Your task to perform on an android device: Open the calendar and show me this week's events Image 0: 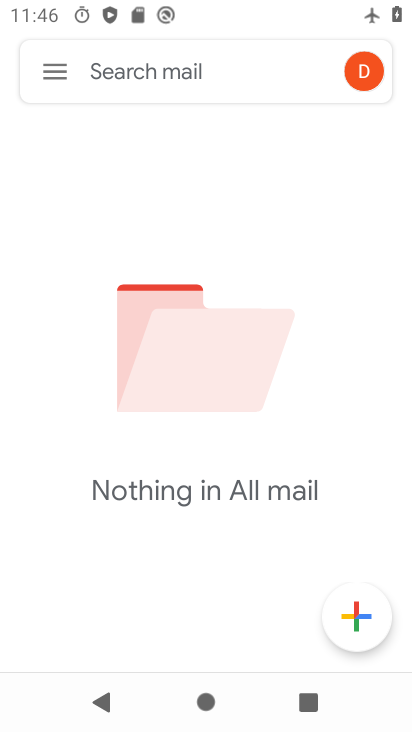
Step 0: press home button
Your task to perform on an android device: Open the calendar and show me this week's events Image 1: 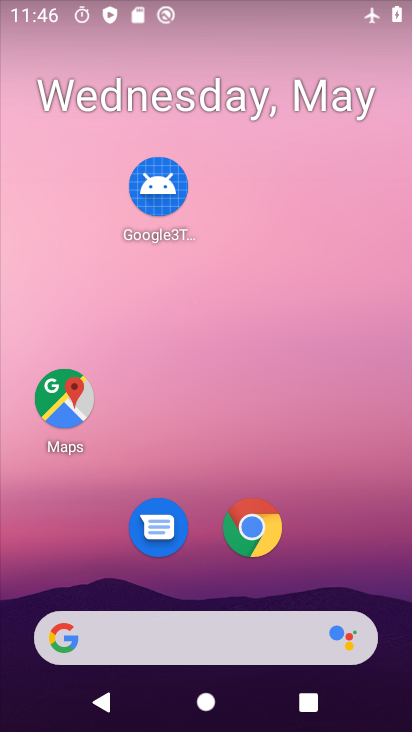
Step 1: drag from (197, 583) to (295, 111)
Your task to perform on an android device: Open the calendar and show me this week's events Image 2: 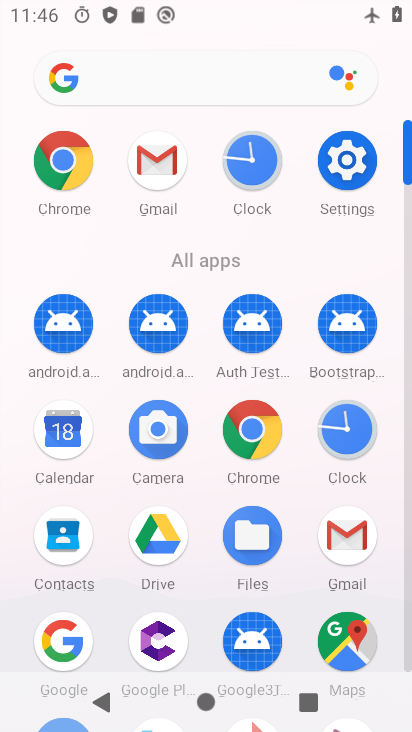
Step 2: click (54, 425)
Your task to perform on an android device: Open the calendar and show me this week's events Image 3: 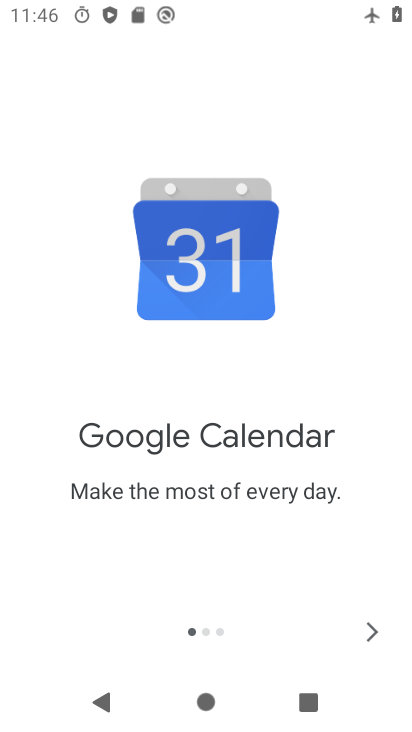
Step 3: click (362, 629)
Your task to perform on an android device: Open the calendar and show me this week's events Image 4: 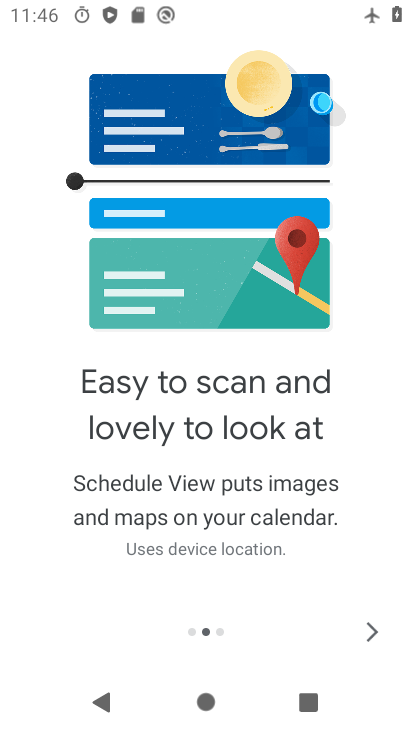
Step 4: click (365, 629)
Your task to perform on an android device: Open the calendar and show me this week's events Image 5: 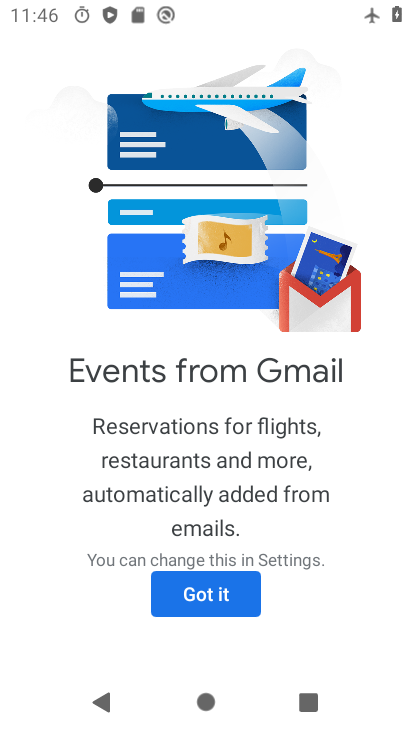
Step 5: click (207, 602)
Your task to perform on an android device: Open the calendar and show me this week's events Image 6: 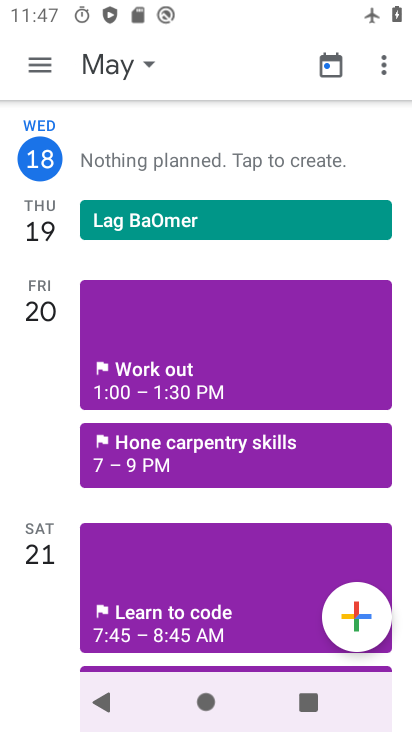
Step 6: click (46, 177)
Your task to perform on an android device: Open the calendar and show me this week's events Image 7: 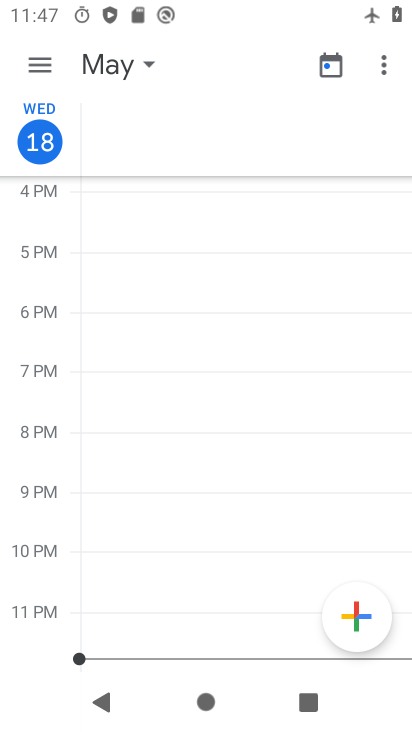
Step 7: click (47, 152)
Your task to perform on an android device: Open the calendar and show me this week's events Image 8: 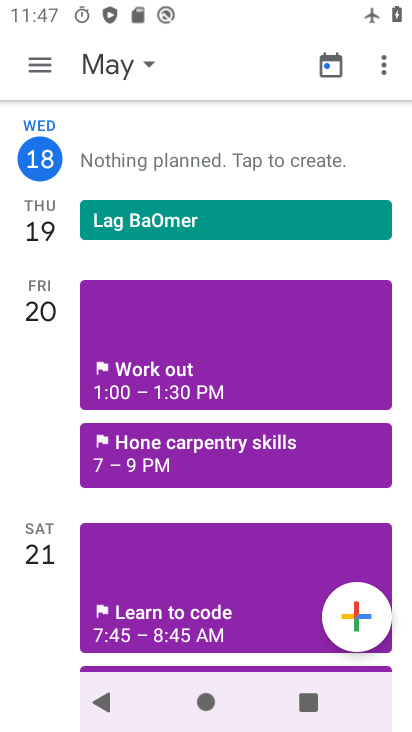
Step 8: drag from (39, 411) to (101, 218)
Your task to perform on an android device: Open the calendar and show me this week's events Image 9: 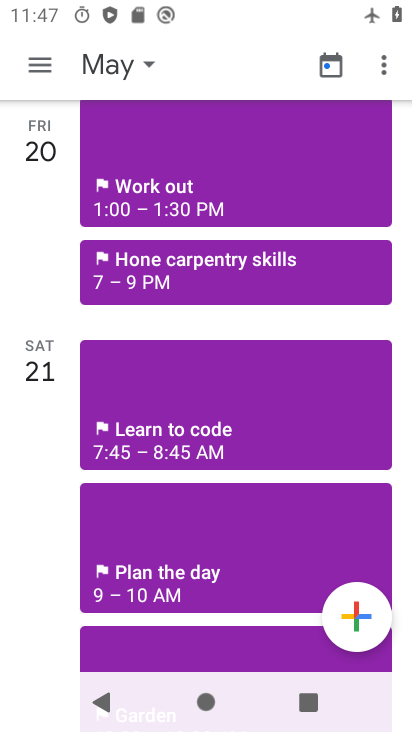
Step 9: drag from (50, 517) to (83, 278)
Your task to perform on an android device: Open the calendar and show me this week's events Image 10: 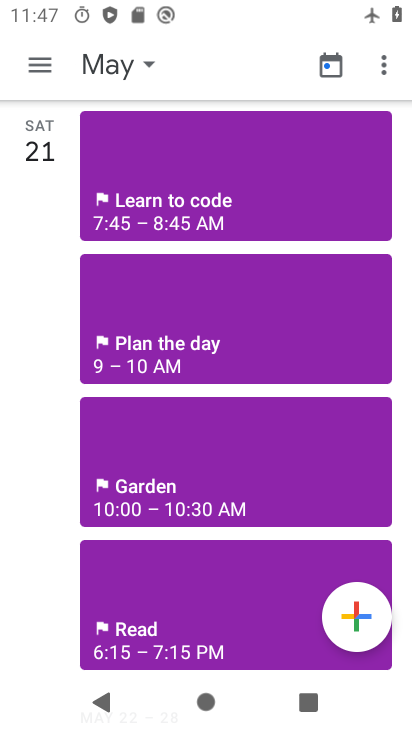
Step 10: drag from (32, 527) to (31, 322)
Your task to perform on an android device: Open the calendar and show me this week's events Image 11: 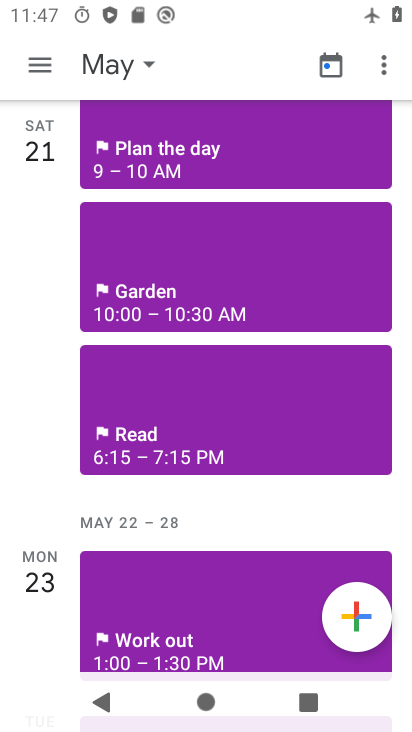
Step 11: click (46, 235)
Your task to perform on an android device: Open the calendar and show me this week's events Image 12: 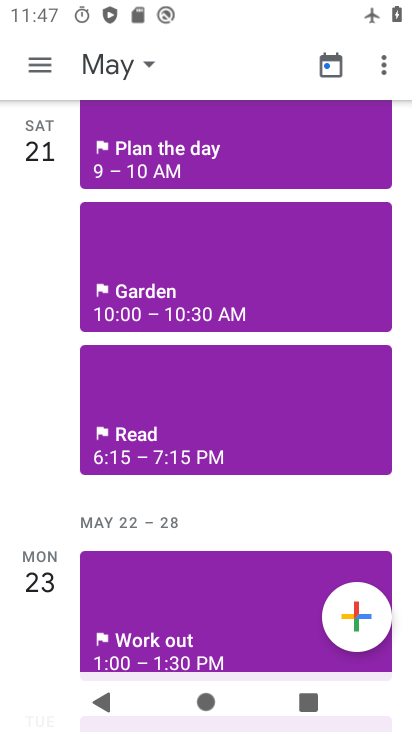
Step 12: task complete